Your task to perform on an android device: How much does a 2 bedroom apartment rent for in Seattle? Image 0: 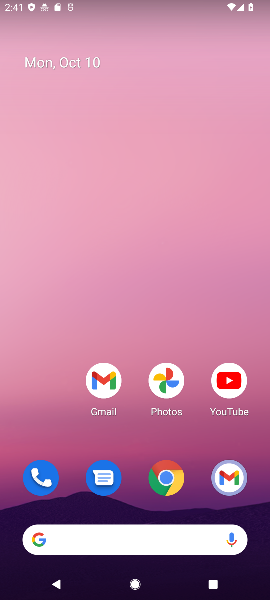
Step 0: click (166, 484)
Your task to perform on an android device: How much does a 2 bedroom apartment rent for in Seattle? Image 1: 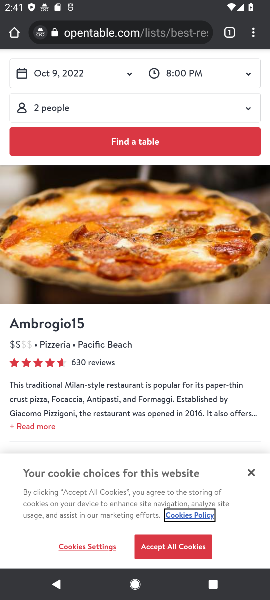
Step 1: click (168, 24)
Your task to perform on an android device: How much does a 2 bedroom apartment rent for in Seattle? Image 2: 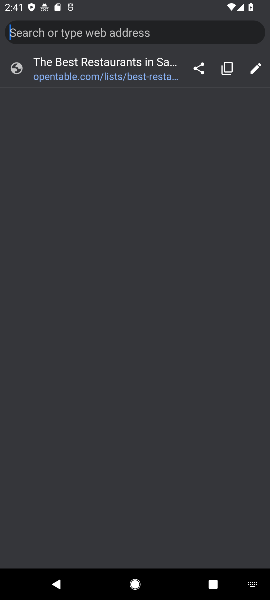
Step 2: type "How much does a 2 bedroom apartment rent for in Seattle?"
Your task to perform on an android device: How much does a 2 bedroom apartment rent for in Seattle? Image 3: 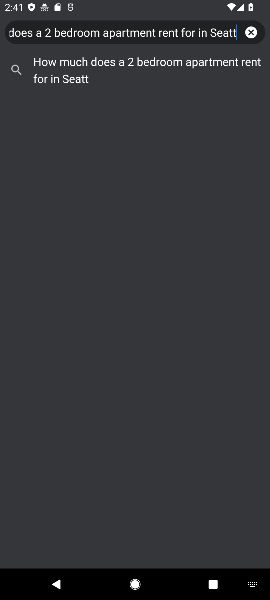
Step 3: click (69, 60)
Your task to perform on an android device: How much does a 2 bedroom apartment rent for in Seattle? Image 4: 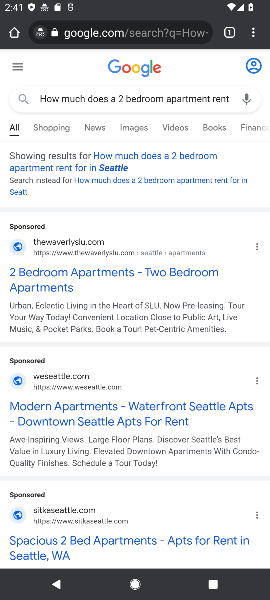
Step 4: drag from (114, 499) to (115, 51)
Your task to perform on an android device: How much does a 2 bedroom apartment rent for in Seattle? Image 5: 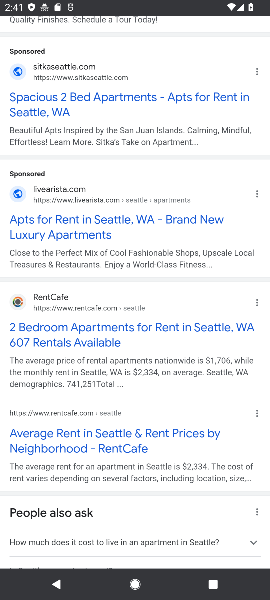
Step 5: click (95, 340)
Your task to perform on an android device: How much does a 2 bedroom apartment rent for in Seattle? Image 6: 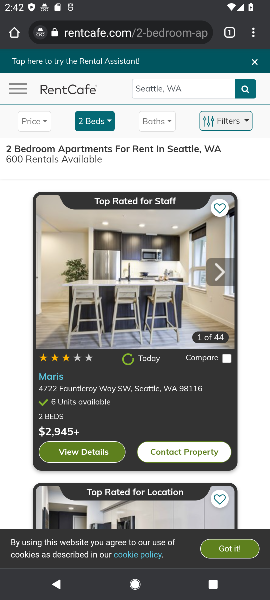
Step 6: task complete